Your task to perform on an android device: delete location history Image 0: 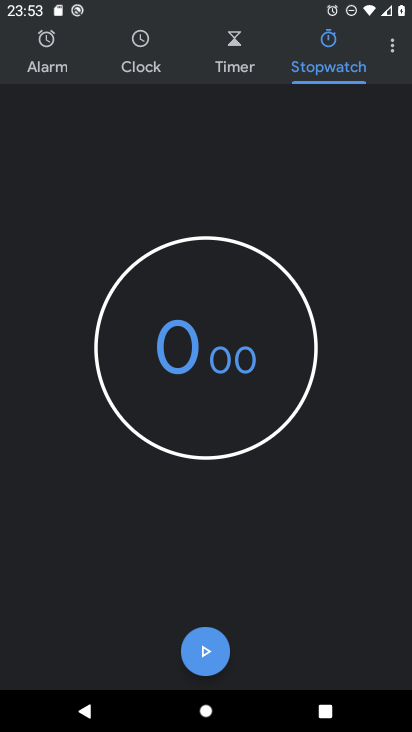
Step 0: press home button
Your task to perform on an android device: delete location history Image 1: 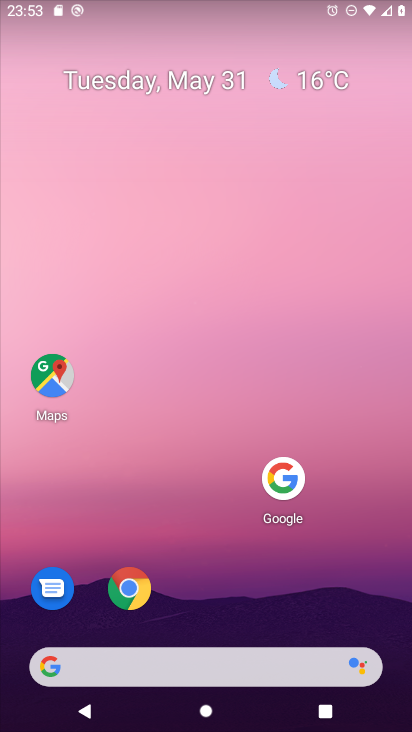
Step 1: click (49, 371)
Your task to perform on an android device: delete location history Image 2: 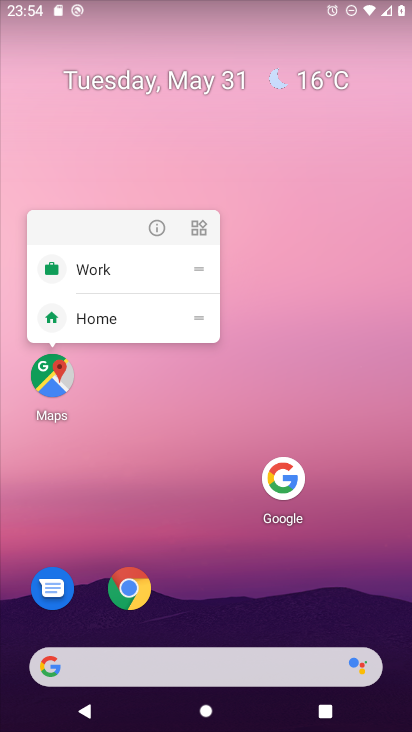
Step 2: click (49, 374)
Your task to perform on an android device: delete location history Image 3: 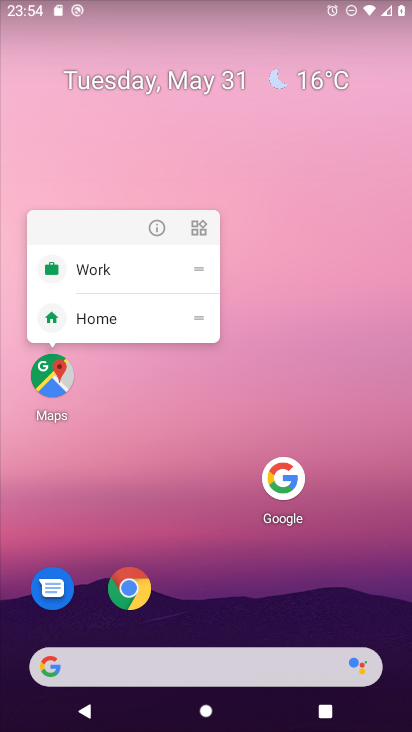
Step 3: click (46, 381)
Your task to perform on an android device: delete location history Image 4: 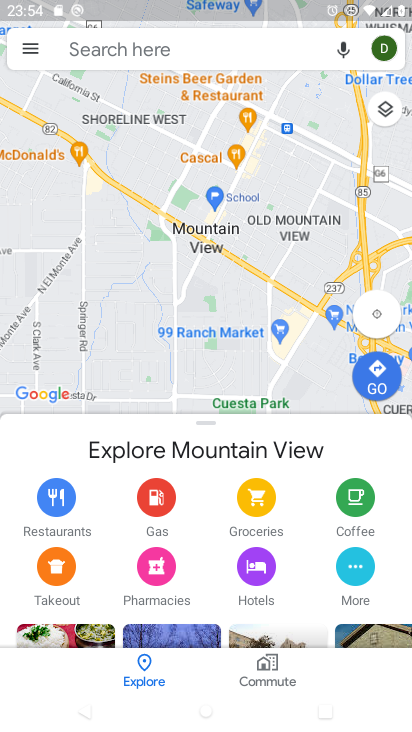
Step 4: click (32, 51)
Your task to perform on an android device: delete location history Image 5: 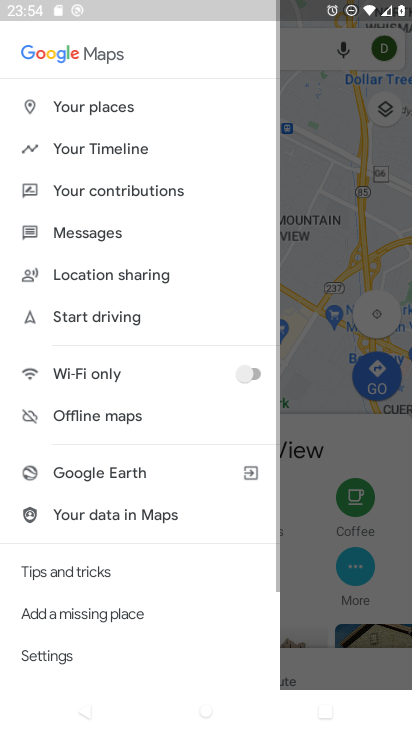
Step 5: click (32, 52)
Your task to perform on an android device: delete location history Image 6: 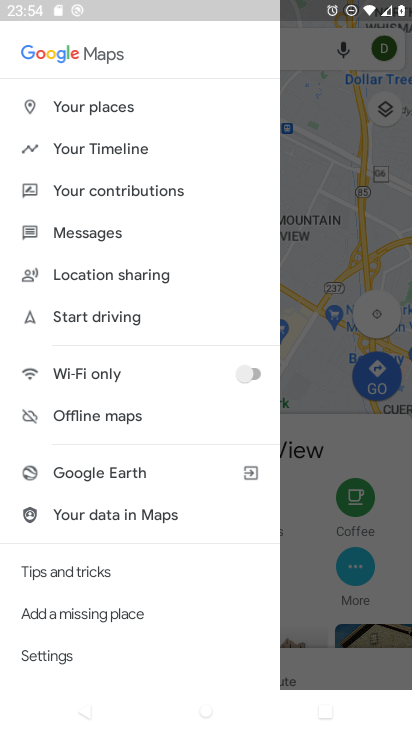
Step 6: click (102, 147)
Your task to perform on an android device: delete location history Image 7: 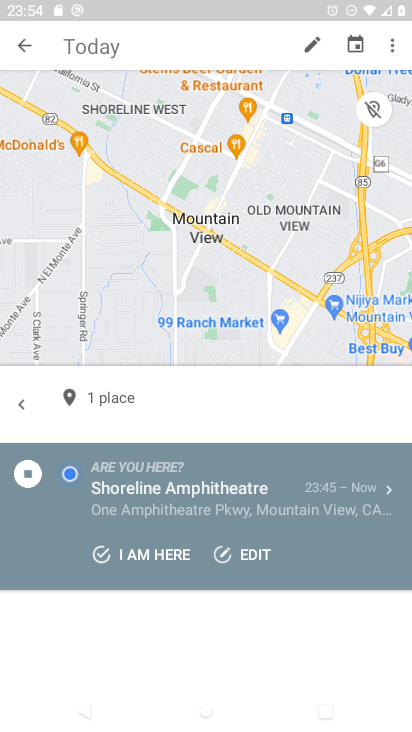
Step 7: click (394, 44)
Your task to perform on an android device: delete location history Image 8: 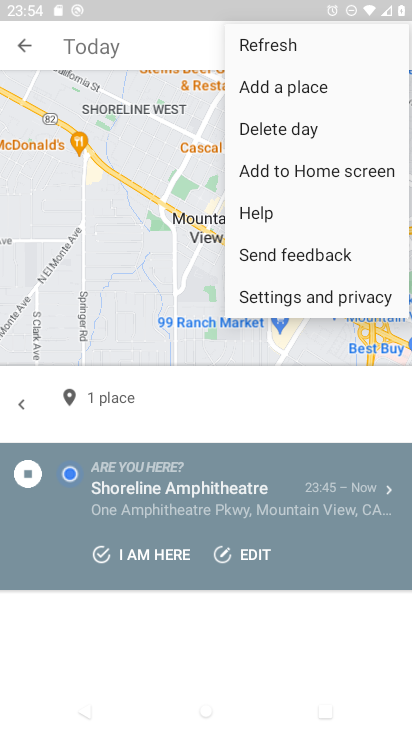
Step 8: click (318, 290)
Your task to perform on an android device: delete location history Image 9: 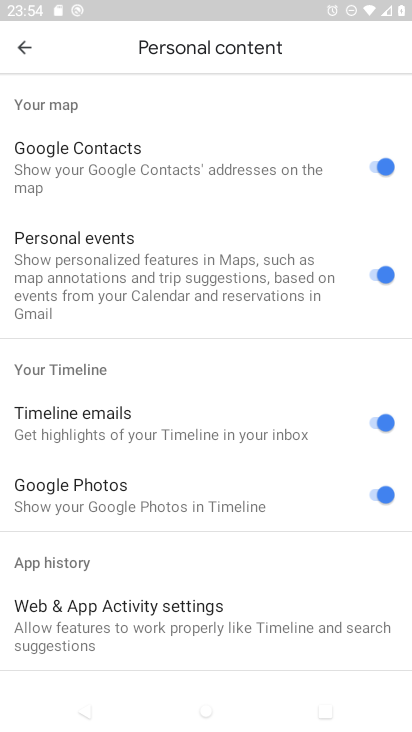
Step 9: drag from (171, 624) to (341, 0)
Your task to perform on an android device: delete location history Image 10: 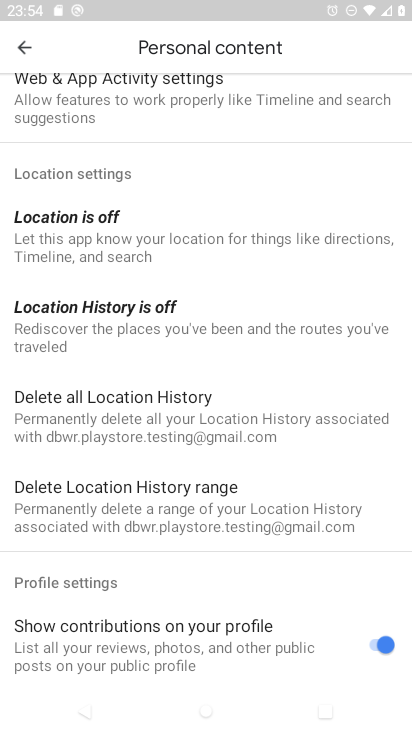
Step 10: click (131, 399)
Your task to perform on an android device: delete location history Image 11: 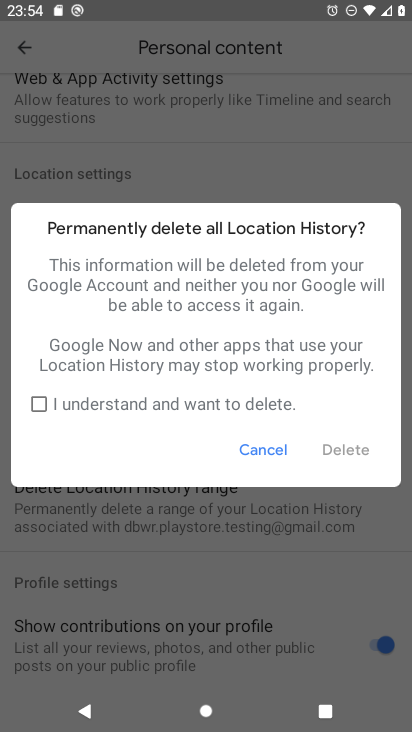
Step 11: click (34, 408)
Your task to perform on an android device: delete location history Image 12: 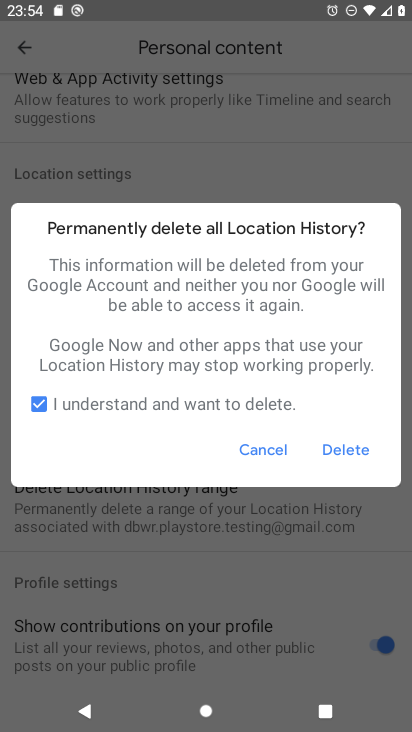
Step 12: click (336, 450)
Your task to perform on an android device: delete location history Image 13: 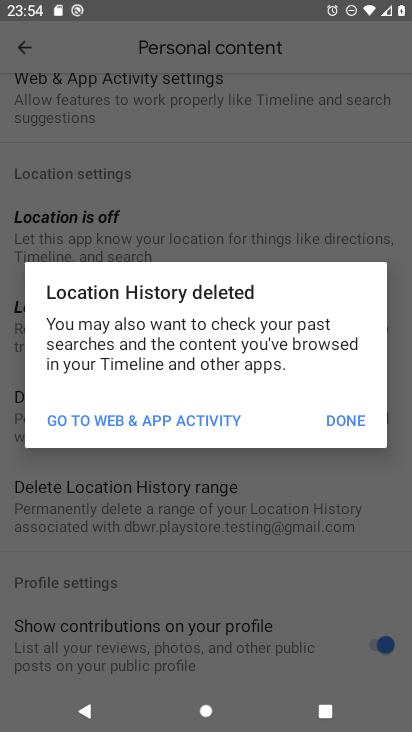
Step 13: click (348, 421)
Your task to perform on an android device: delete location history Image 14: 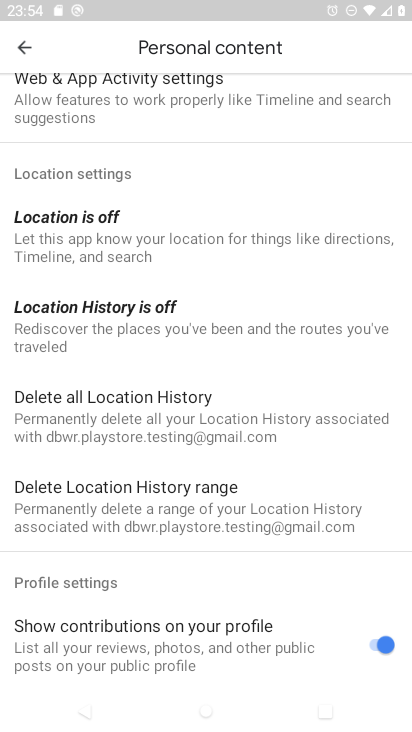
Step 14: task complete